Your task to perform on an android device: turn off smart reply in the gmail app Image 0: 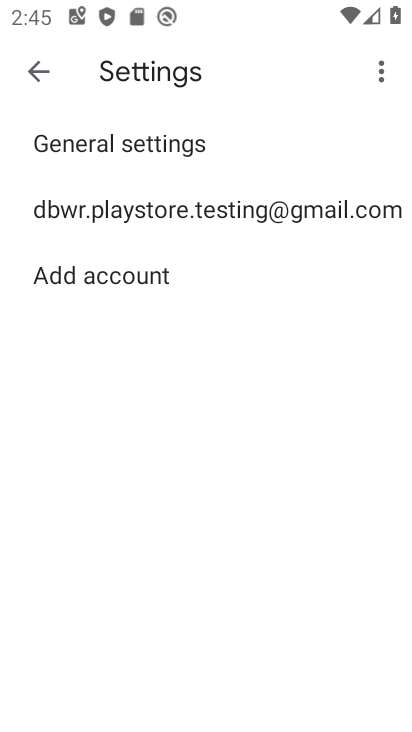
Step 0: drag from (287, 538) to (336, 308)
Your task to perform on an android device: turn off smart reply in the gmail app Image 1: 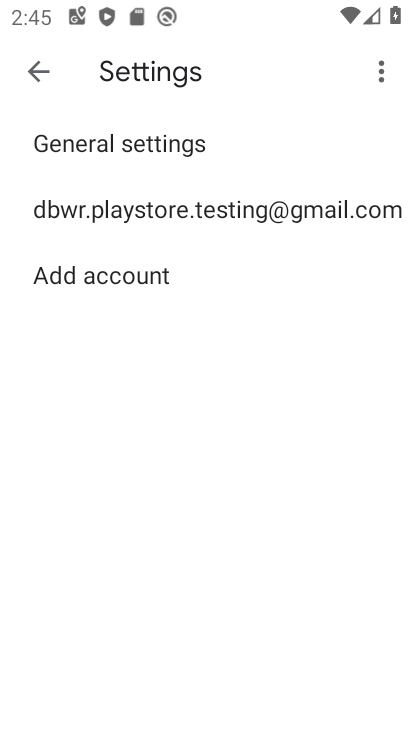
Step 1: drag from (221, 512) to (262, 229)
Your task to perform on an android device: turn off smart reply in the gmail app Image 2: 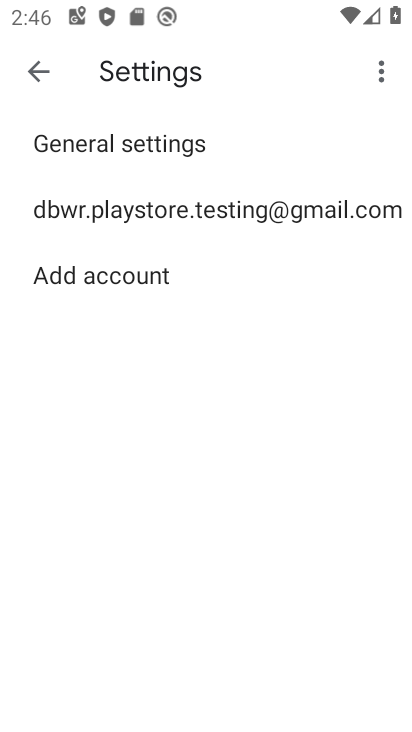
Step 2: click (331, 568)
Your task to perform on an android device: turn off smart reply in the gmail app Image 3: 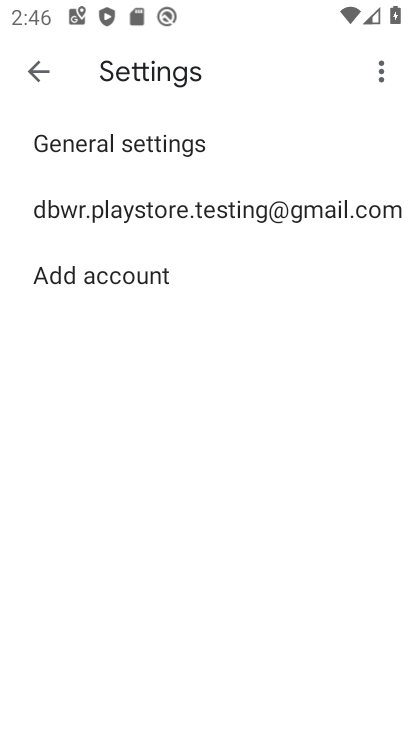
Step 3: click (197, 211)
Your task to perform on an android device: turn off smart reply in the gmail app Image 4: 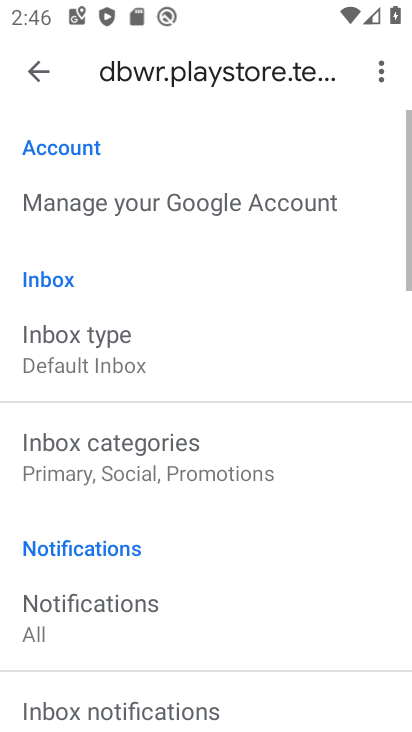
Step 4: drag from (223, 487) to (280, 75)
Your task to perform on an android device: turn off smart reply in the gmail app Image 5: 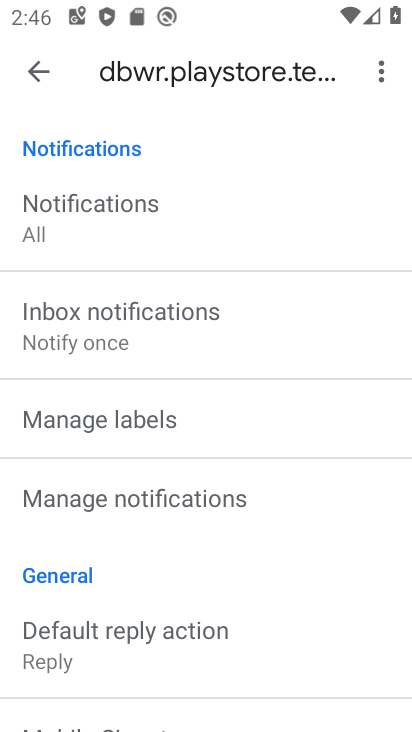
Step 5: drag from (176, 538) to (262, 181)
Your task to perform on an android device: turn off smart reply in the gmail app Image 6: 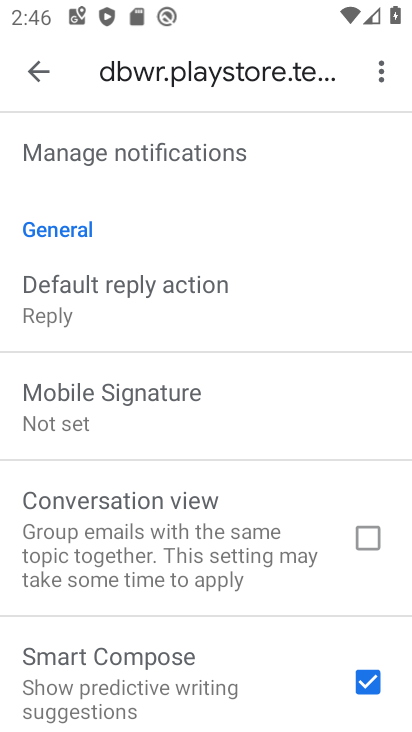
Step 6: drag from (224, 584) to (245, 381)
Your task to perform on an android device: turn off smart reply in the gmail app Image 7: 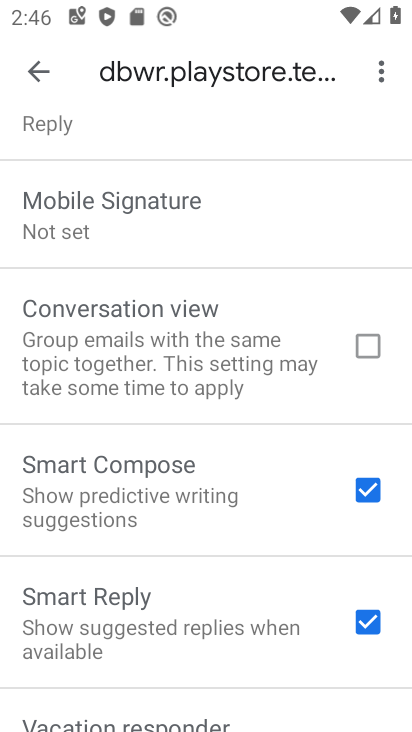
Step 7: click (352, 614)
Your task to perform on an android device: turn off smart reply in the gmail app Image 8: 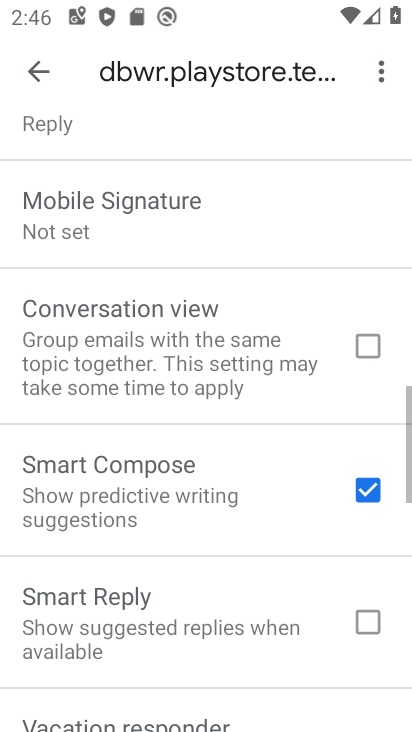
Step 8: task complete